Your task to perform on an android device: Search for vegetarian restaurants on Maps Image 0: 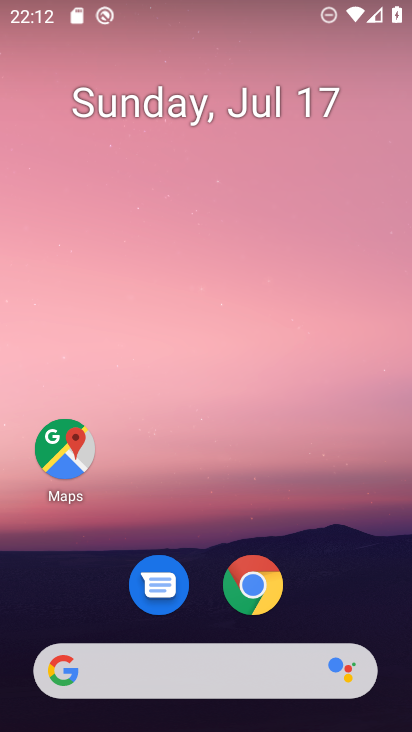
Step 0: click (64, 459)
Your task to perform on an android device: Search for vegetarian restaurants on Maps Image 1: 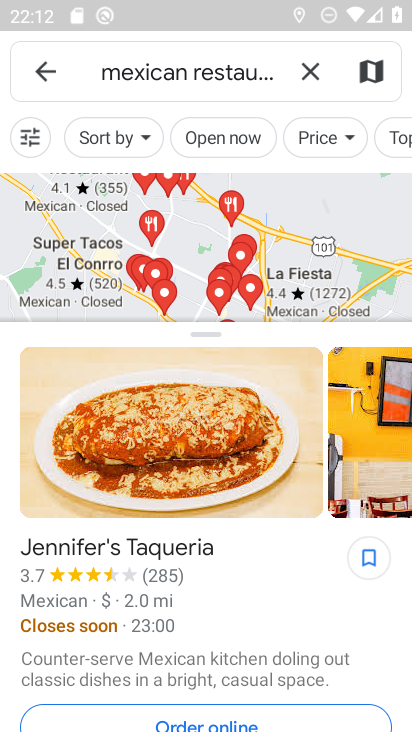
Step 1: click (311, 68)
Your task to perform on an android device: Search for vegetarian restaurants on Maps Image 2: 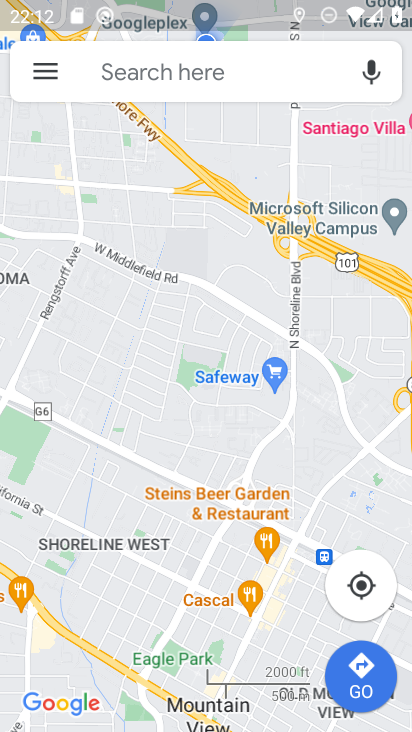
Step 2: click (139, 67)
Your task to perform on an android device: Search for vegetarian restaurants on Maps Image 3: 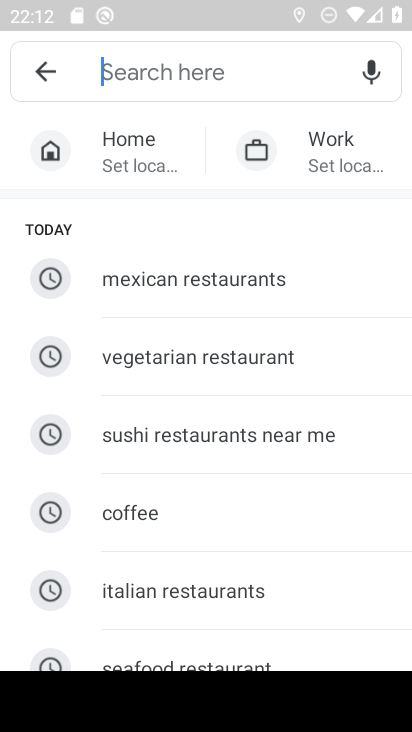
Step 3: click (194, 369)
Your task to perform on an android device: Search for vegetarian restaurants on Maps Image 4: 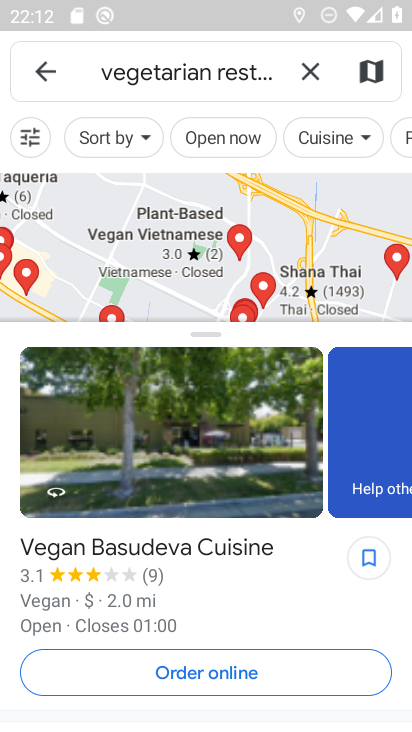
Step 4: task complete